Your task to perform on an android device: toggle location history Image 0: 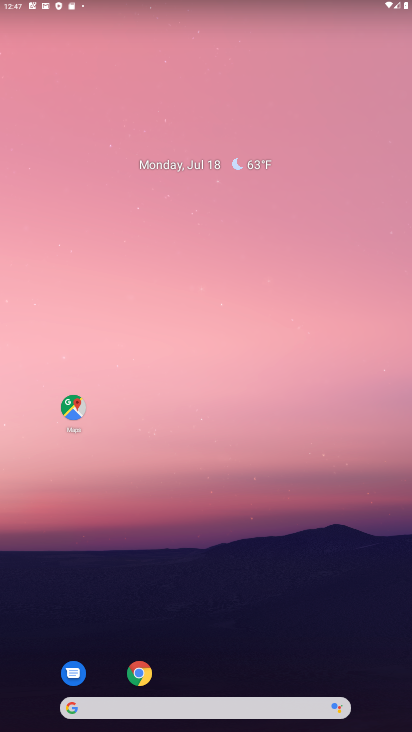
Step 0: drag from (202, 592) to (202, 166)
Your task to perform on an android device: toggle location history Image 1: 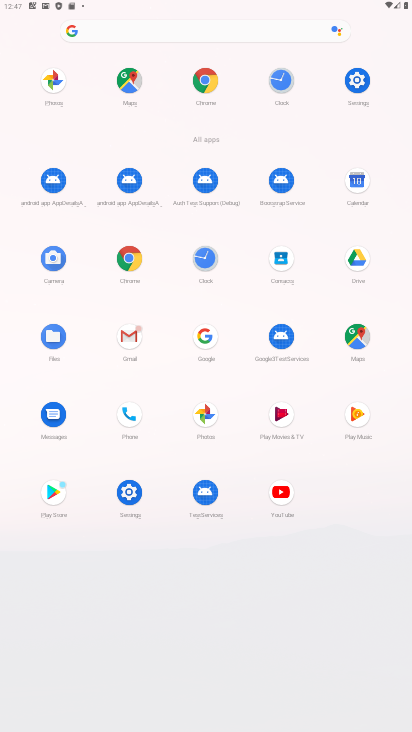
Step 1: click (347, 78)
Your task to perform on an android device: toggle location history Image 2: 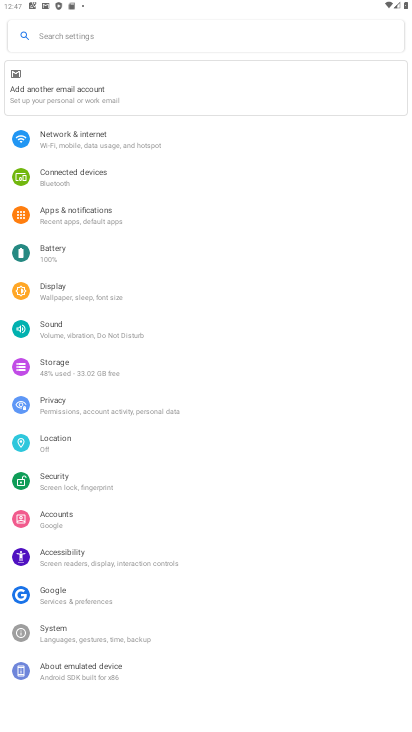
Step 2: click (54, 438)
Your task to perform on an android device: toggle location history Image 3: 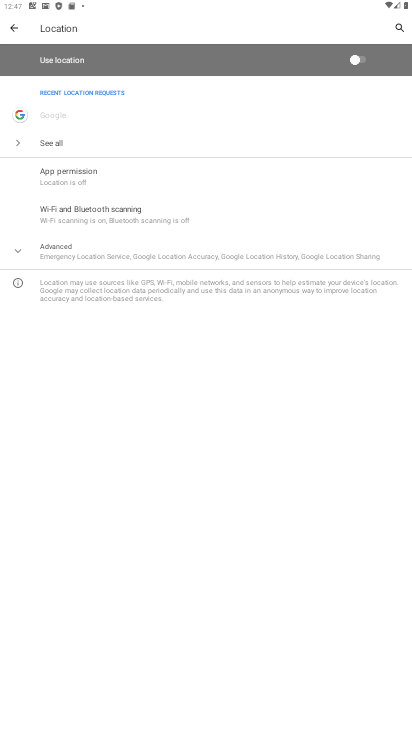
Step 3: click (184, 245)
Your task to perform on an android device: toggle location history Image 4: 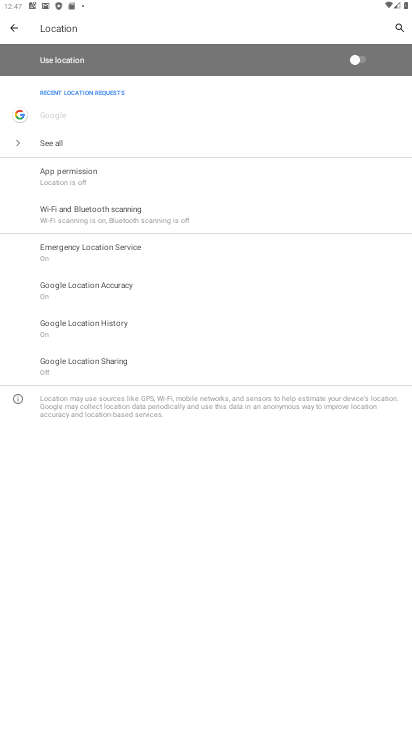
Step 4: click (94, 287)
Your task to perform on an android device: toggle location history Image 5: 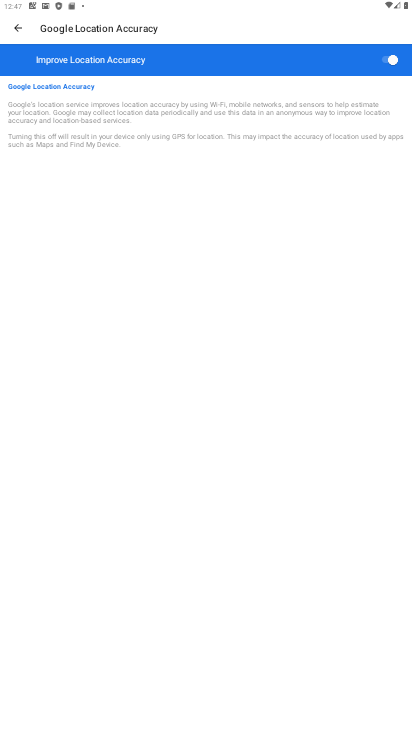
Step 5: press back button
Your task to perform on an android device: toggle location history Image 6: 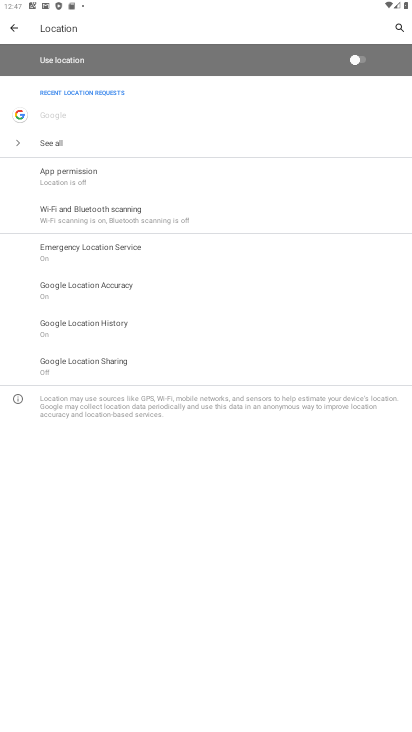
Step 6: click (121, 325)
Your task to perform on an android device: toggle location history Image 7: 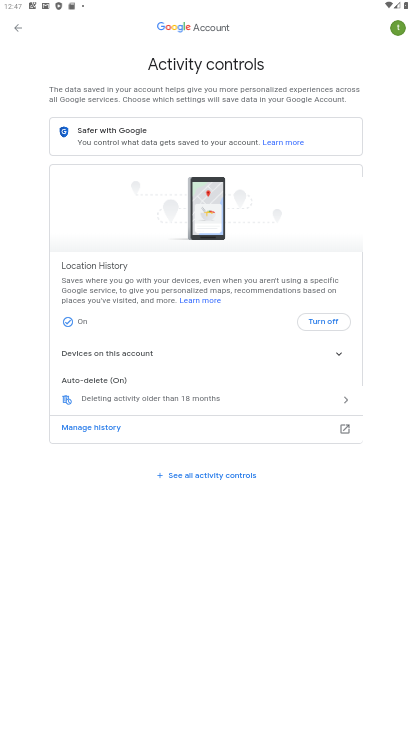
Step 7: click (317, 321)
Your task to perform on an android device: toggle location history Image 8: 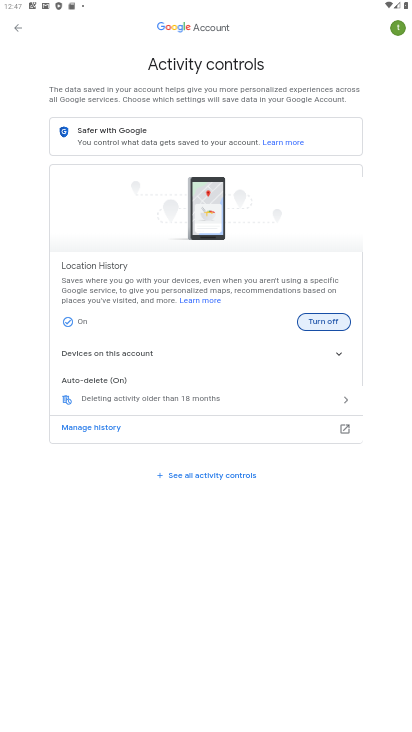
Step 8: task complete